Your task to perform on an android device: delete the emails in spam in the gmail app Image 0: 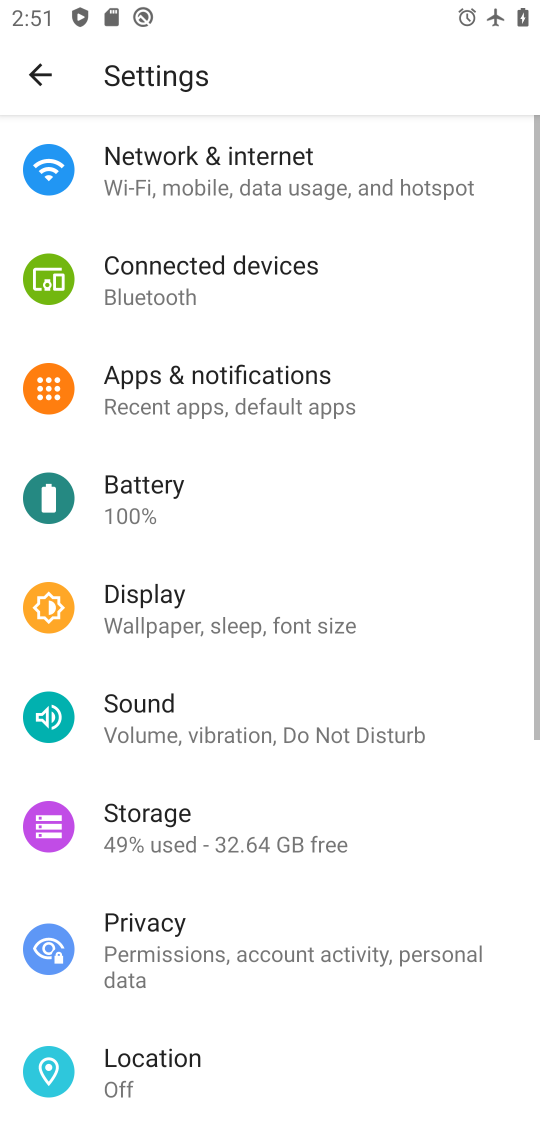
Step 0: drag from (247, 980) to (282, 636)
Your task to perform on an android device: delete the emails in spam in the gmail app Image 1: 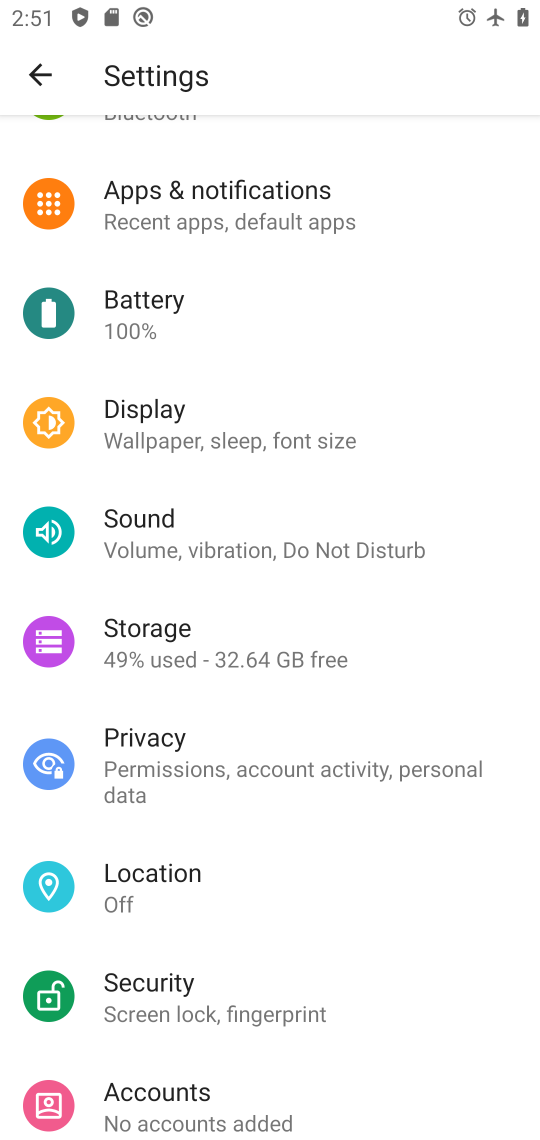
Step 1: drag from (282, 716) to (428, 849)
Your task to perform on an android device: delete the emails in spam in the gmail app Image 2: 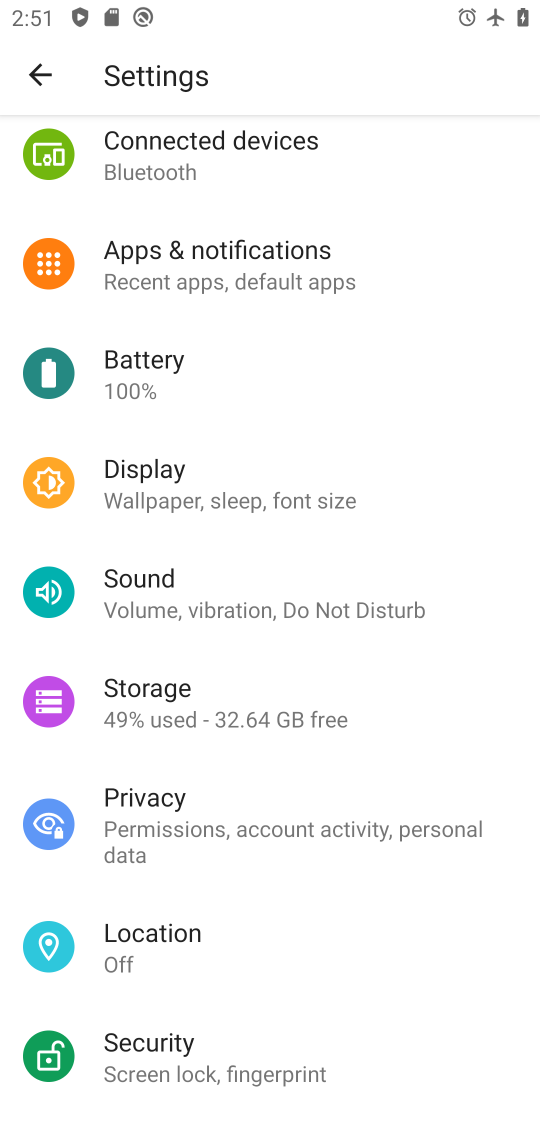
Step 2: press home button
Your task to perform on an android device: delete the emails in spam in the gmail app Image 3: 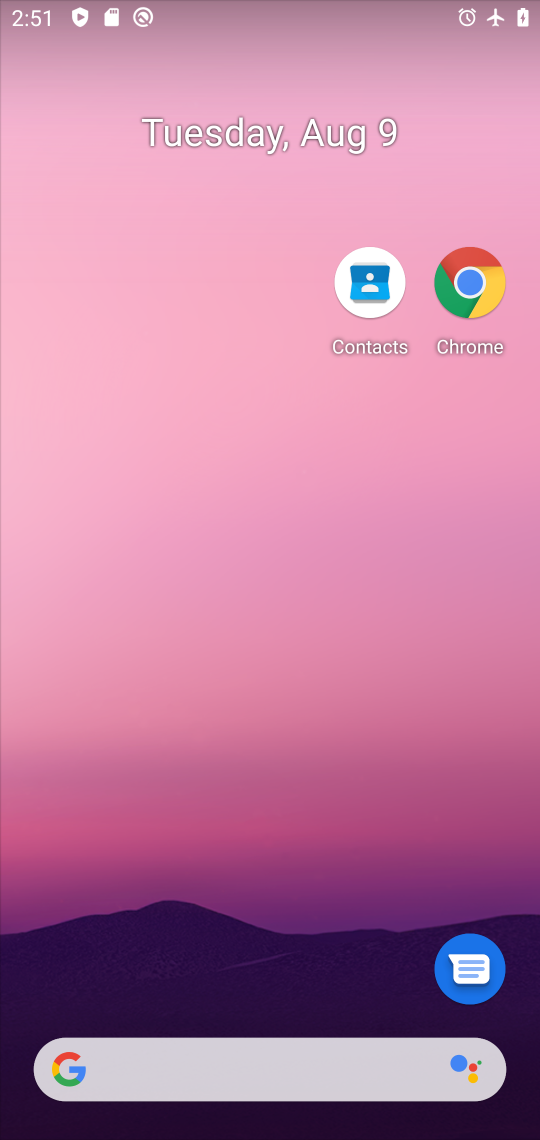
Step 3: drag from (286, 951) to (396, 0)
Your task to perform on an android device: delete the emails in spam in the gmail app Image 4: 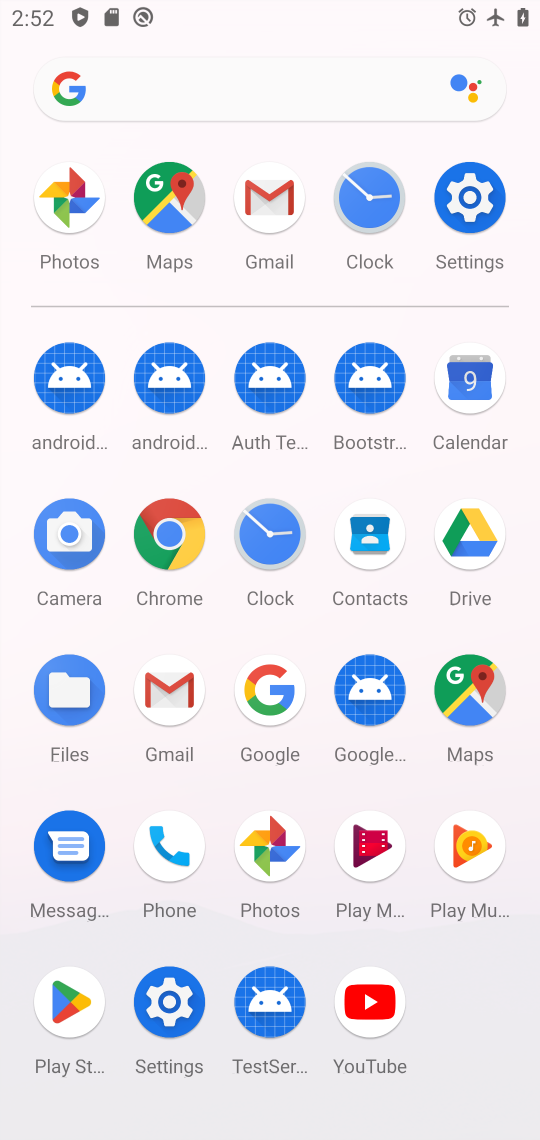
Step 4: click (158, 708)
Your task to perform on an android device: delete the emails in spam in the gmail app Image 5: 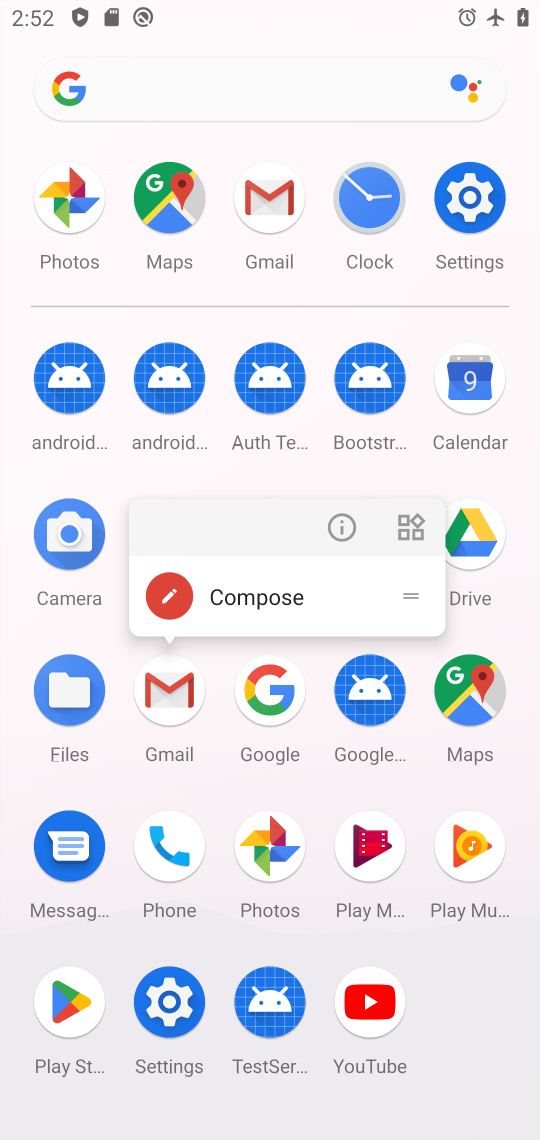
Step 5: click (330, 522)
Your task to perform on an android device: delete the emails in spam in the gmail app Image 6: 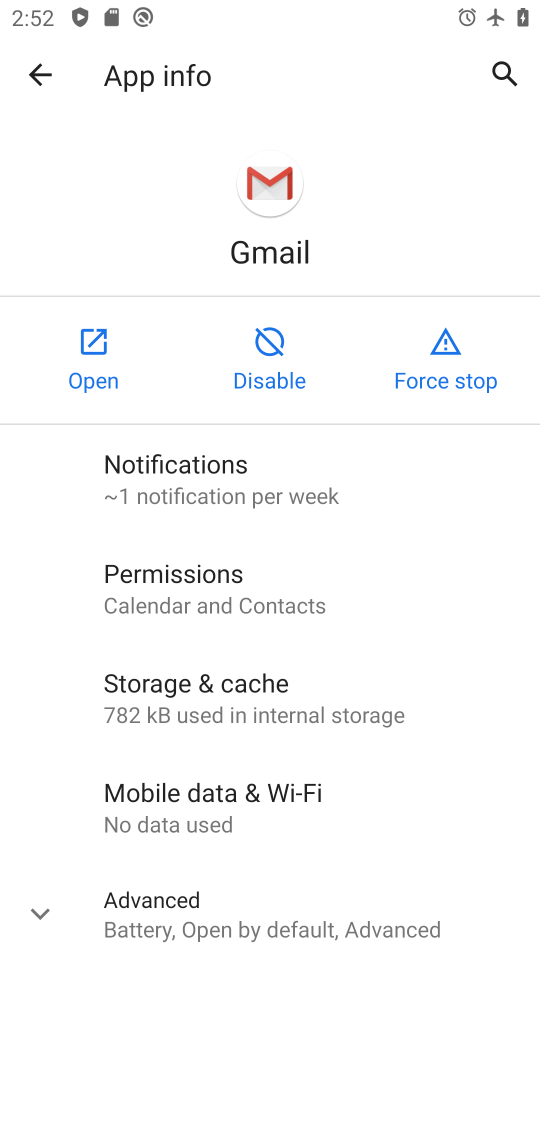
Step 6: click (82, 363)
Your task to perform on an android device: delete the emails in spam in the gmail app Image 7: 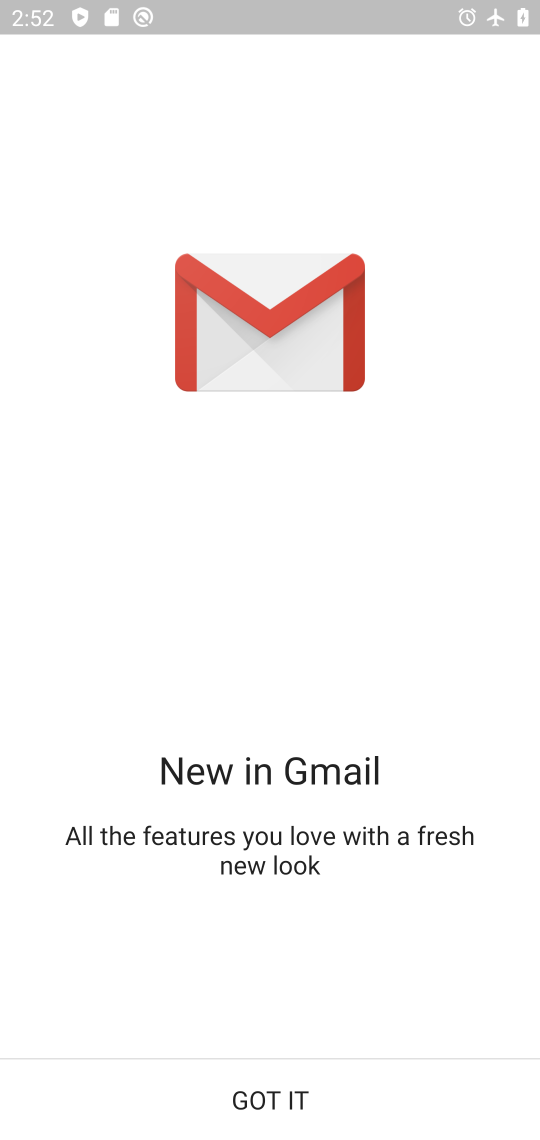
Step 7: click (278, 1112)
Your task to perform on an android device: delete the emails in spam in the gmail app Image 8: 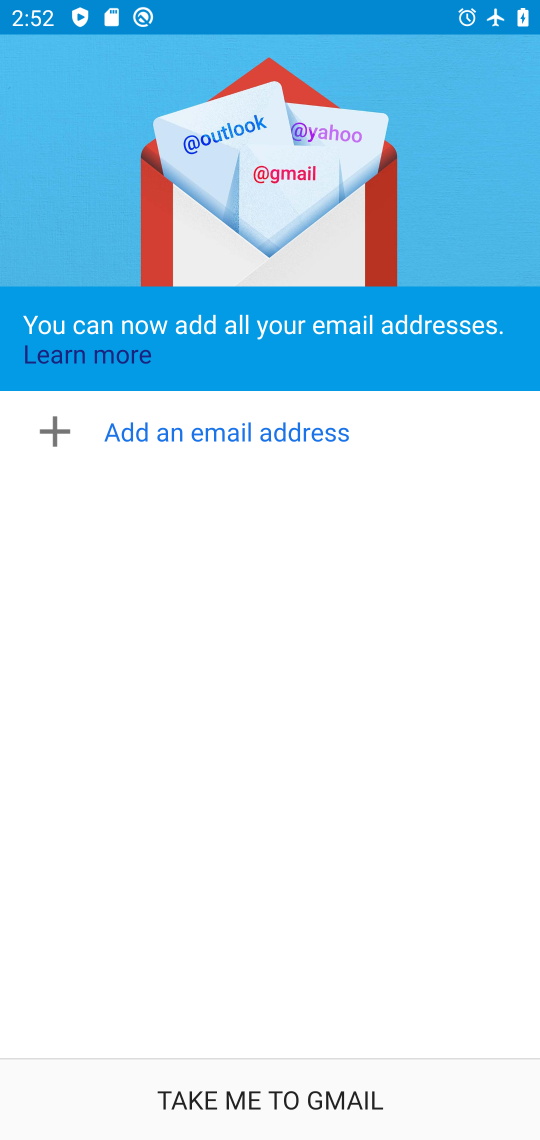
Step 8: click (243, 1090)
Your task to perform on an android device: delete the emails in spam in the gmail app Image 9: 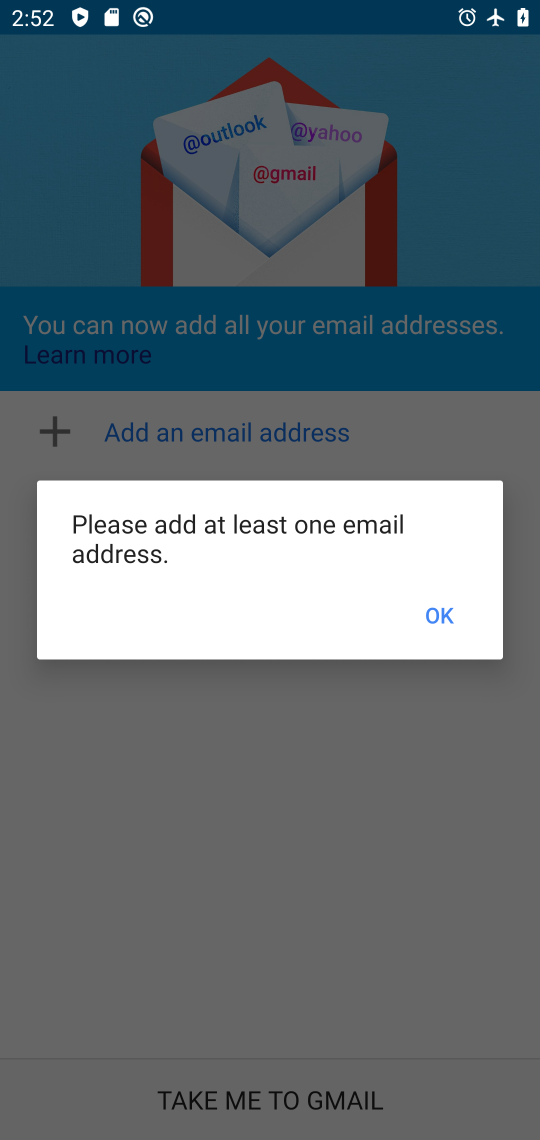
Step 9: task complete